Your task to perform on an android device: change the clock display to analog Image 0: 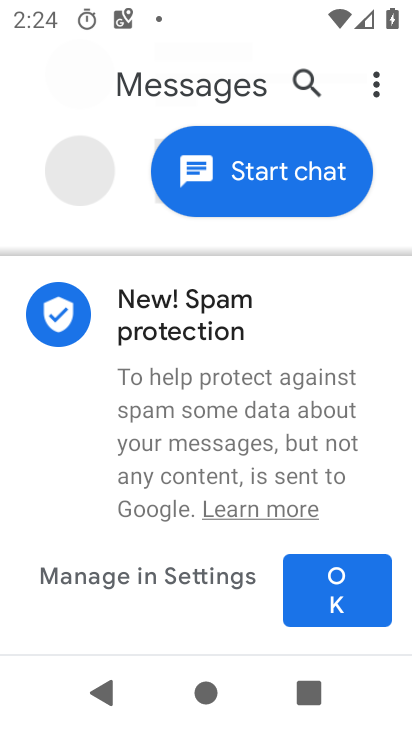
Step 0: press home button
Your task to perform on an android device: change the clock display to analog Image 1: 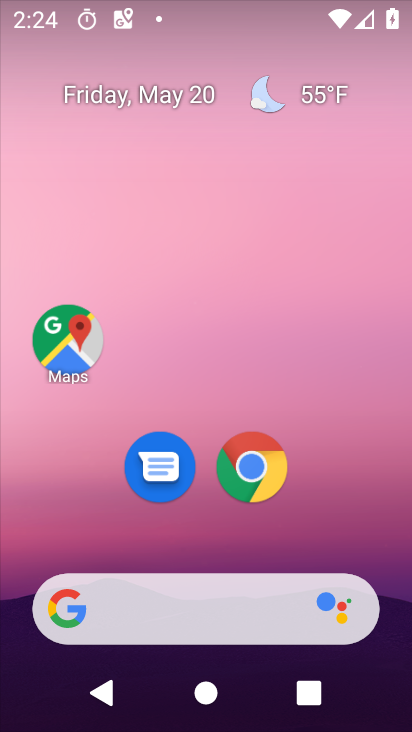
Step 1: drag from (301, 538) to (214, 33)
Your task to perform on an android device: change the clock display to analog Image 2: 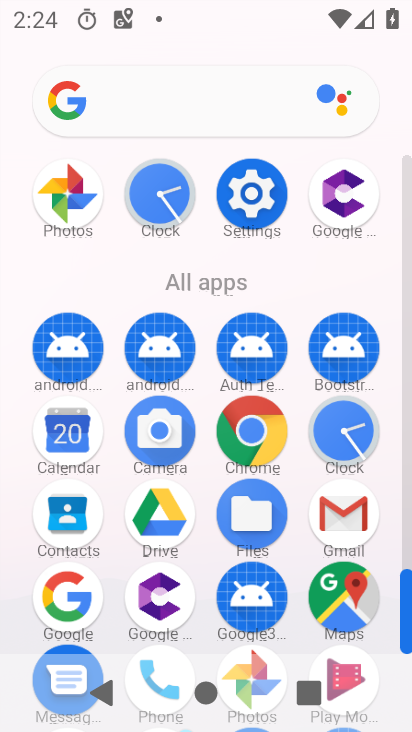
Step 2: click (350, 422)
Your task to perform on an android device: change the clock display to analog Image 3: 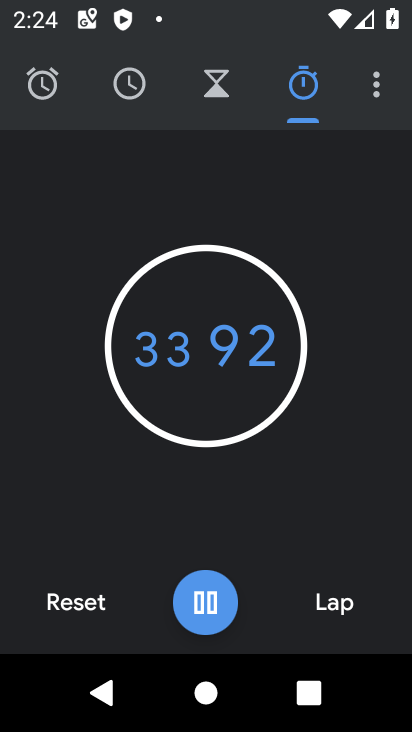
Step 3: click (379, 72)
Your task to perform on an android device: change the clock display to analog Image 4: 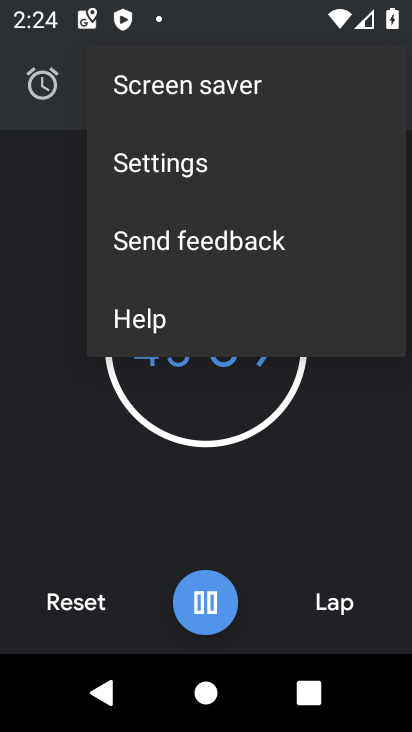
Step 4: click (149, 153)
Your task to perform on an android device: change the clock display to analog Image 5: 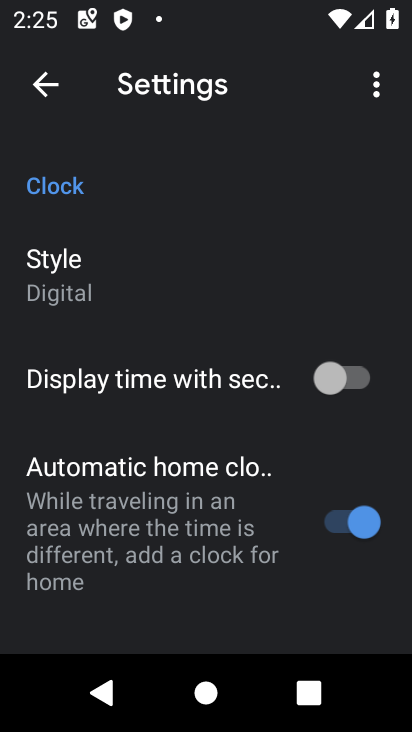
Step 5: click (65, 289)
Your task to perform on an android device: change the clock display to analog Image 6: 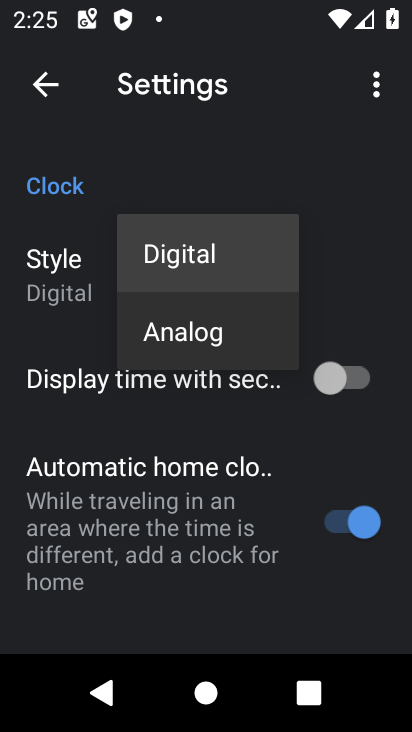
Step 6: click (197, 337)
Your task to perform on an android device: change the clock display to analog Image 7: 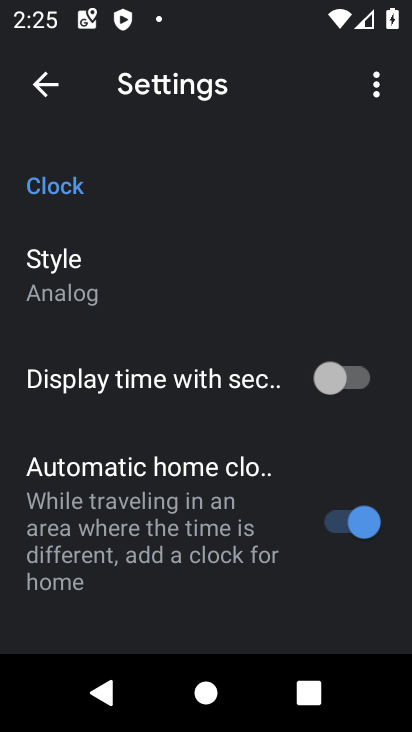
Step 7: task complete